Your task to perform on an android device: Open Google Maps Image 0: 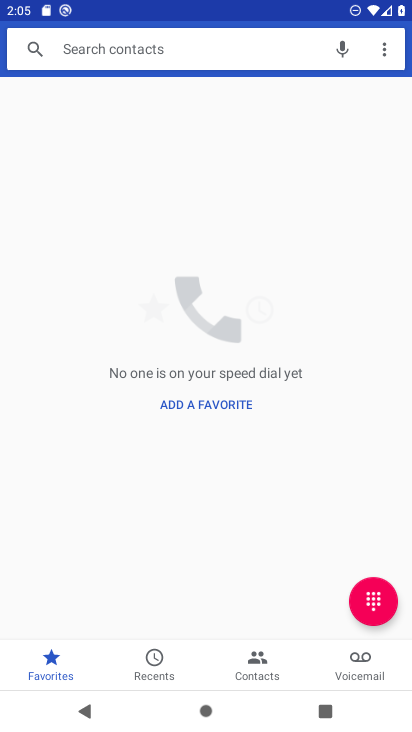
Step 0: press back button
Your task to perform on an android device: Open Google Maps Image 1: 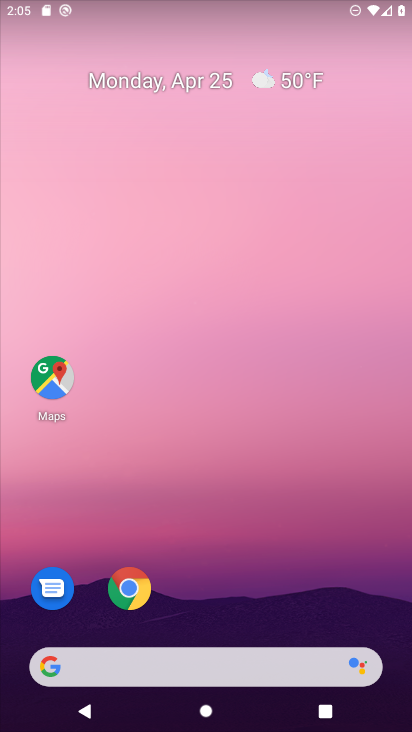
Step 1: click (62, 386)
Your task to perform on an android device: Open Google Maps Image 2: 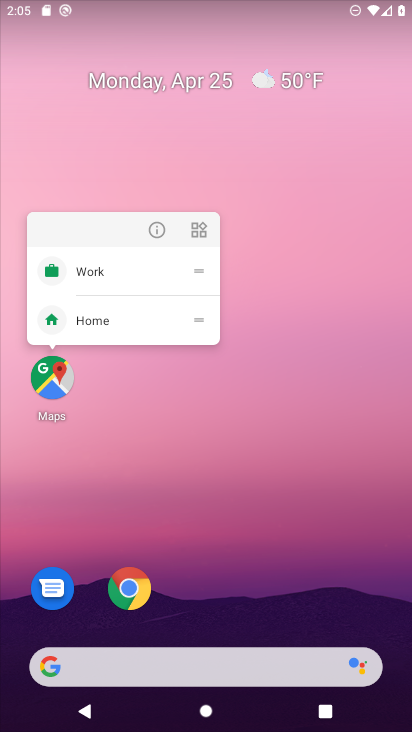
Step 2: click (61, 385)
Your task to perform on an android device: Open Google Maps Image 3: 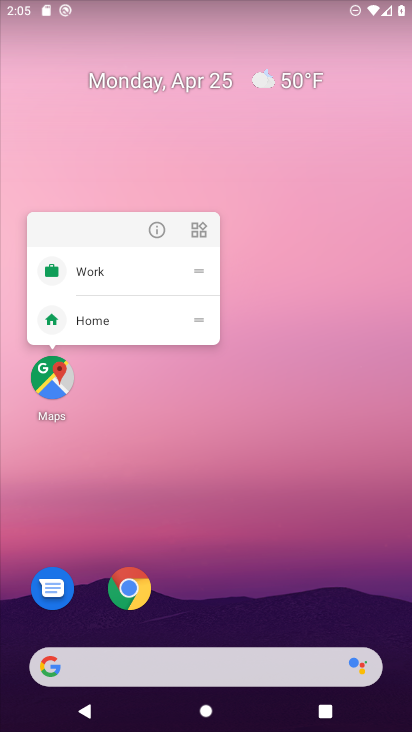
Step 3: click (43, 385)
Your task to perform on an android device: Open Google Maps Image 4: 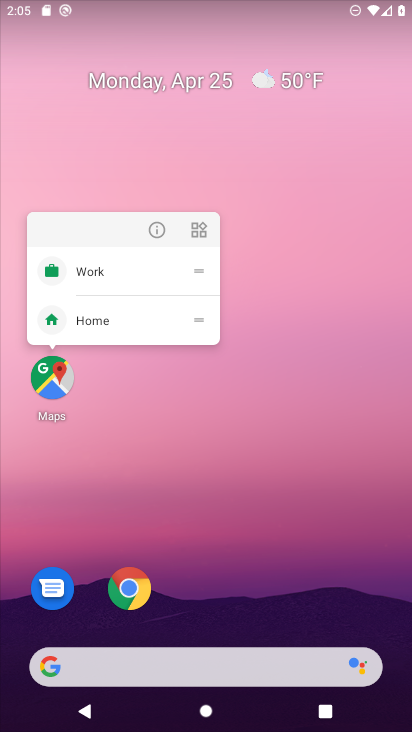
Step 4: click (40, 378)
Your task to perform on an android device: Open Google Maps Image 5: 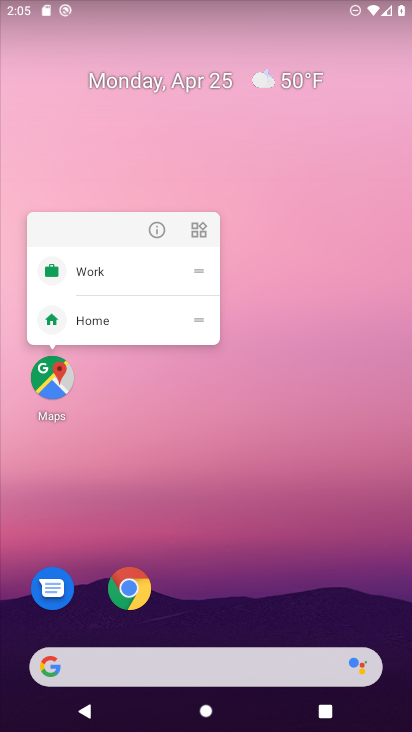
Step 5: click (40, 378)
Your task to perform on an android device: Open Google Maps Image 6: 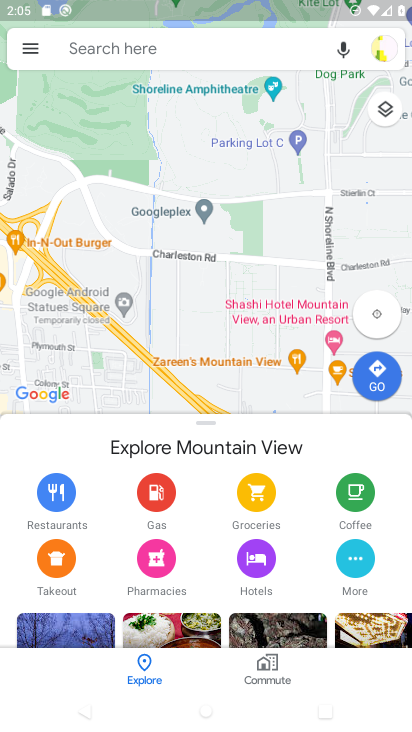
Step 6: task complete